Your task to perform on an android device: Go to sound settings Image 0: 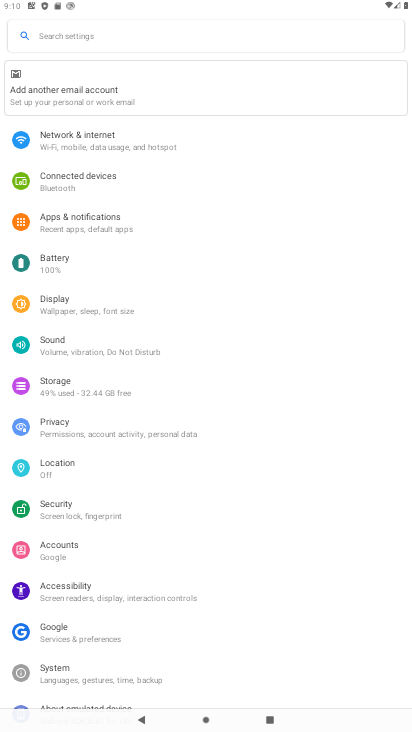
Step 0: click (91, 350)
Your task to perform on an android device: Go to sound settings Image 1: 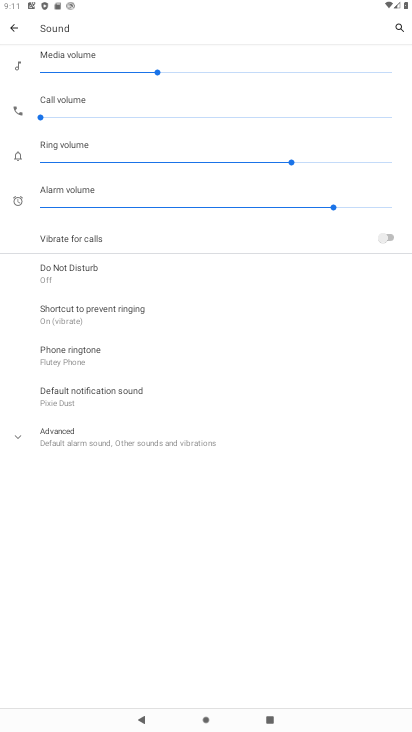
Step 1: task complete